Your task to perform on an android device: turn off notifications settings in the gmail app Image 0: 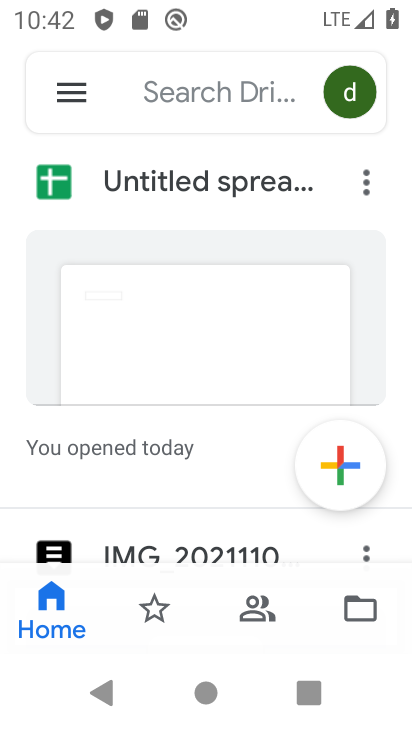
Step 0: press home button
Your task to perform on an android device: turn off notifications settings in the gmail app Image 1: 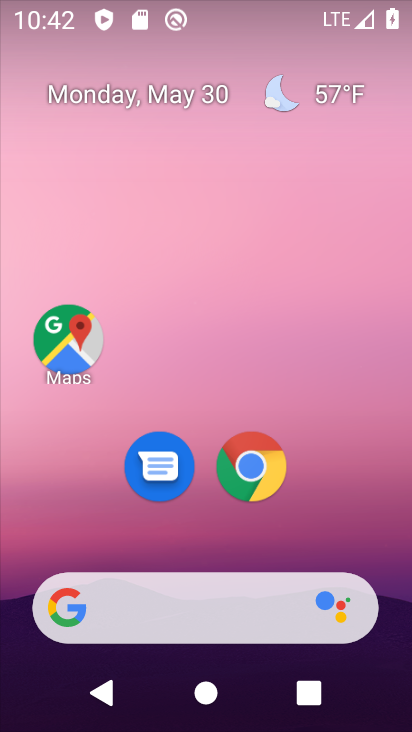
Step 1: drag from (335, 510) to (311, 163)
Your task to perform on an android device: turn off notifications settings in the gmail app Image 2: 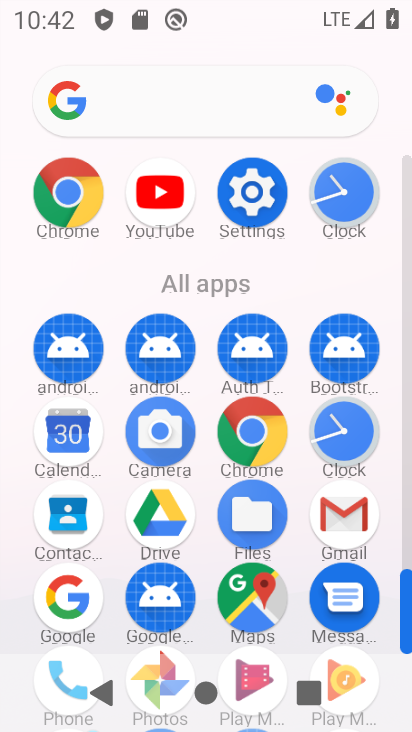
Step 2: click (363, 508)
Your task to perform on an android device: turn off notifications settings in the gmail app Image 3: 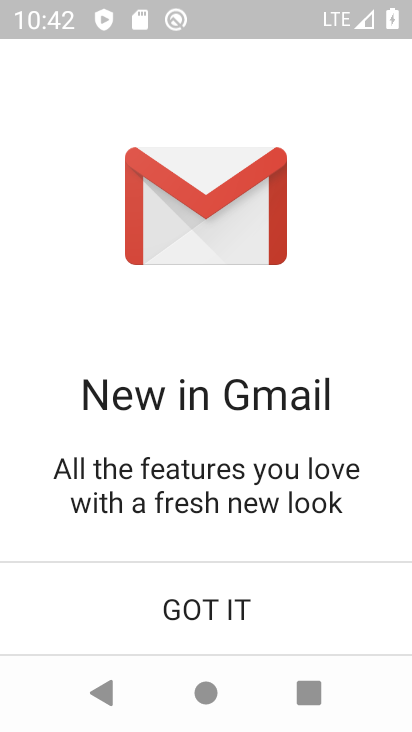
Step 3: click (201, 601)
Your task to perform on an android device: turn off notifications settings in the gmail app Image 4: 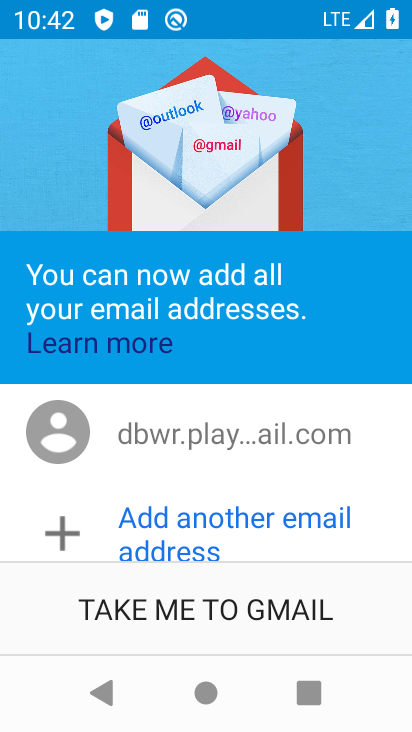
Step 4: click (159, 599)
Your task to perform on an android device: turn off notifications settings in the gmail app Image 5: 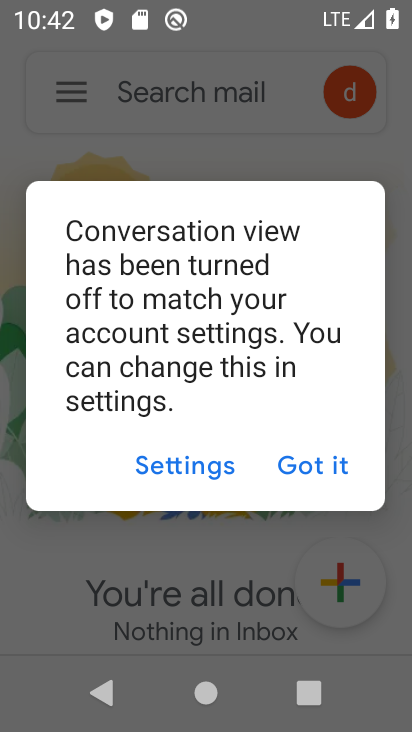
Step 5: click (358, 467)
Your task to perform on an android device: turn off notifications settings in the gmail app Image 6: 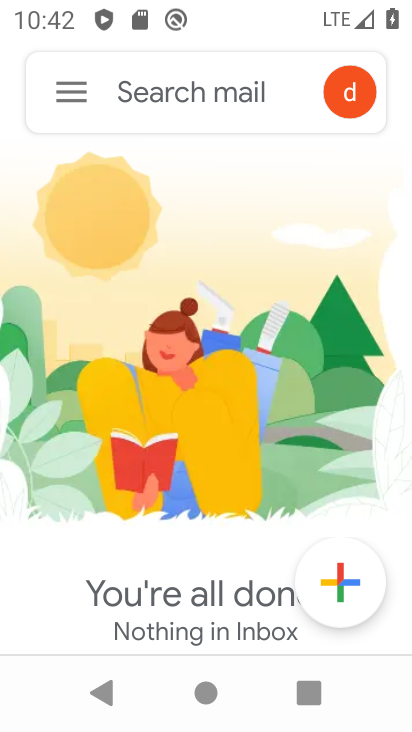
Step 6: click (78, 92)
Your task to perform on an android device: turn off notifications settings in the gmail app Image 7: 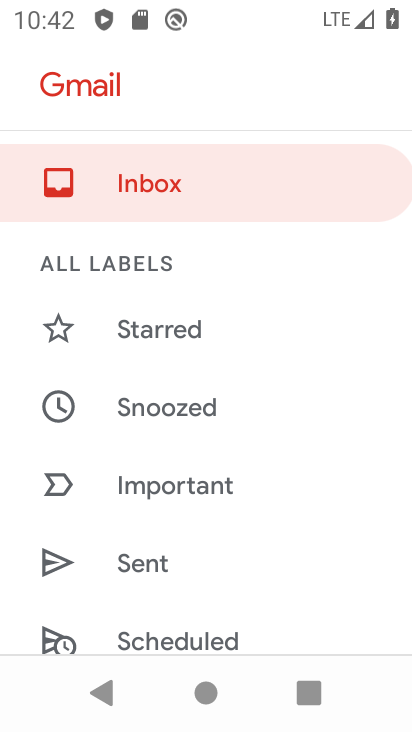
Step 7: drag from (284, 623) to (283, 151)
Your task to perform on an android device: turn off notifications settings in the gmail app Image 8: 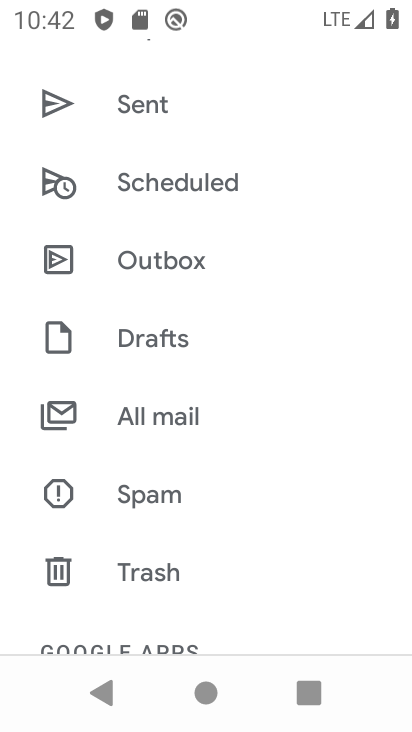
Step 8: drag from (323, 627) to (314, 255)
Your task to perform on an android device: turn off notifications settings in the gmail app Image 9: 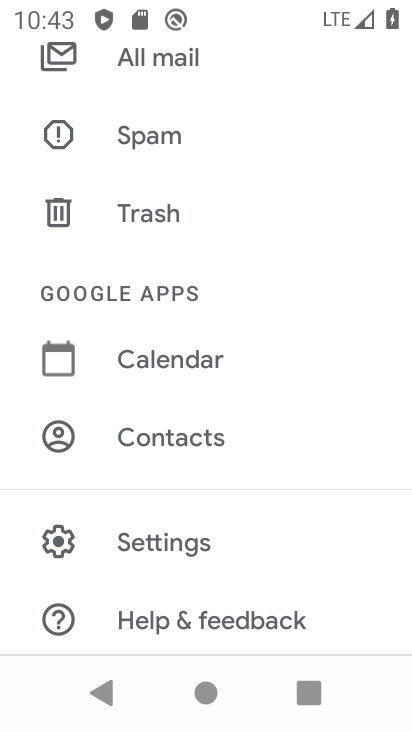
Step 9: click (187, 535)
Your task to perform on an android device: turn off notifications settings in the gmail app Image 10: 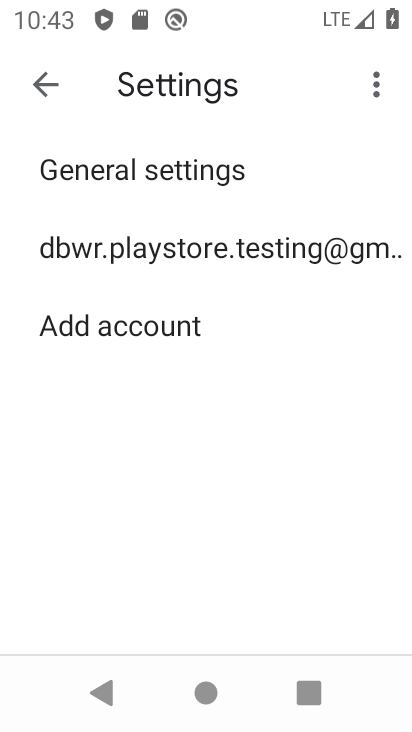
Step 10: click (182, 250)
Your task to perform on an android device: turn off notifications settings in the gmail app Image 11: 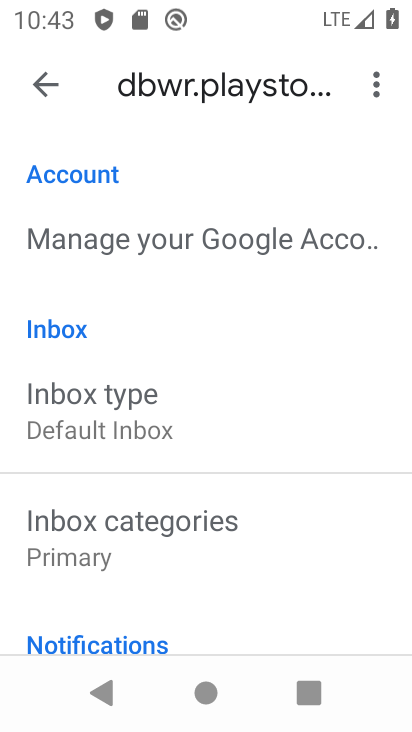
Step 11: drag from (377, 582) to (366, 30)
Your task to perform on an android device: turn off notifications settings in the gmail app Image 12: 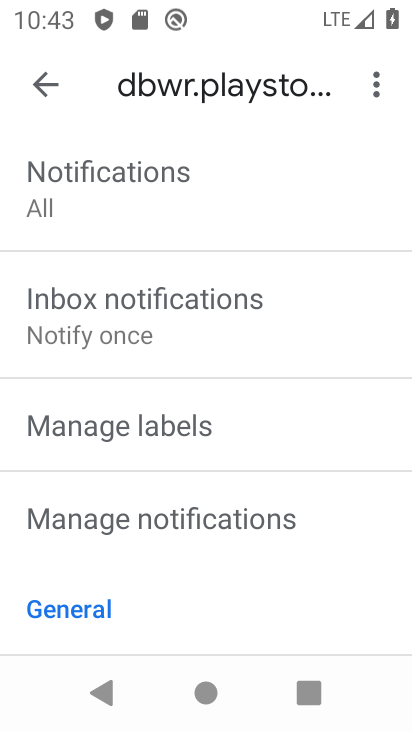
Step 12: click (187, 506)
Your task to perform on an android device: turn off notifications settings in the gmail app Image 13: 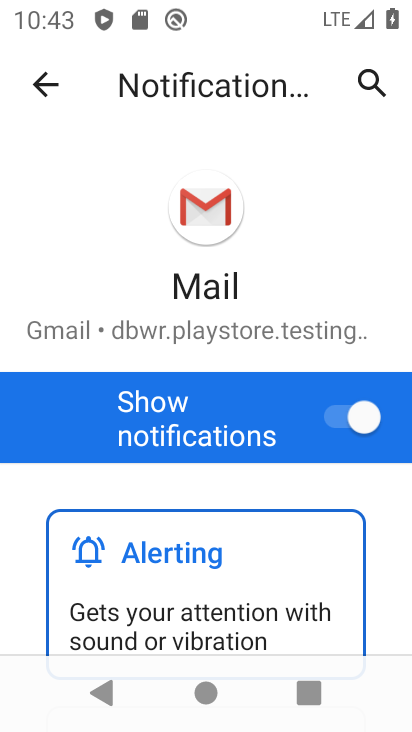
Step 13: click (348, 411)
Your task to perform on an android device: turn off notifications settings in the gmail app Image 14: 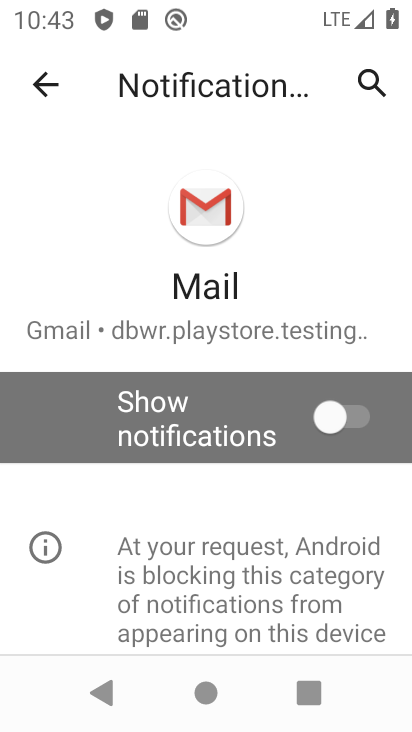
Step 14: task complete